Your task to perform on an android device: Open privacy settings Image 0: 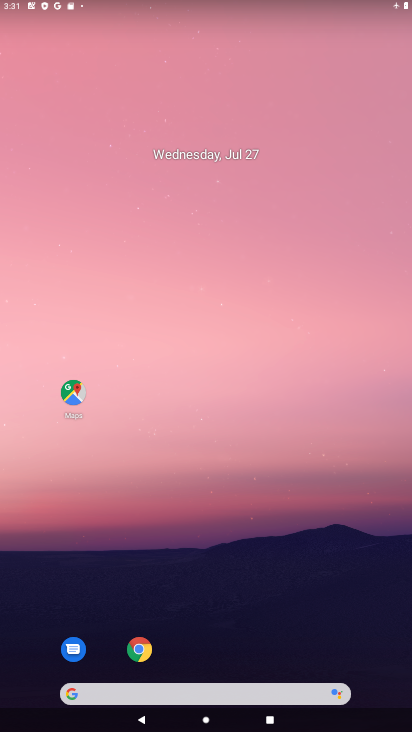
Step 0: drag from (237, 579) to (303, 194)
Your task to perform on an android device: Open privacy settings Image 1: 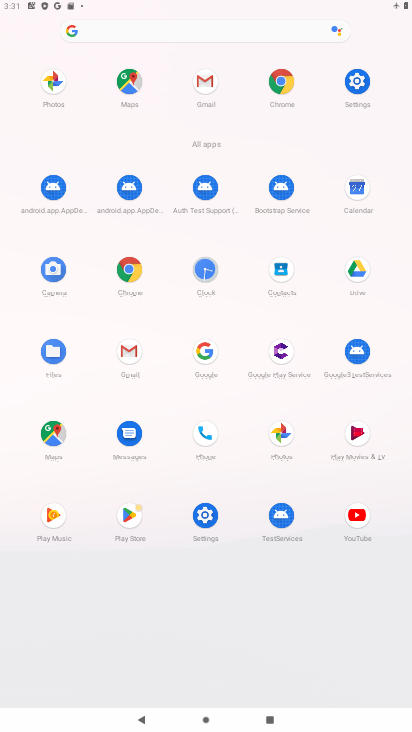
Step 1: click (204, 521)
Your task to perform on an android device: Open privacy settings Image 2: 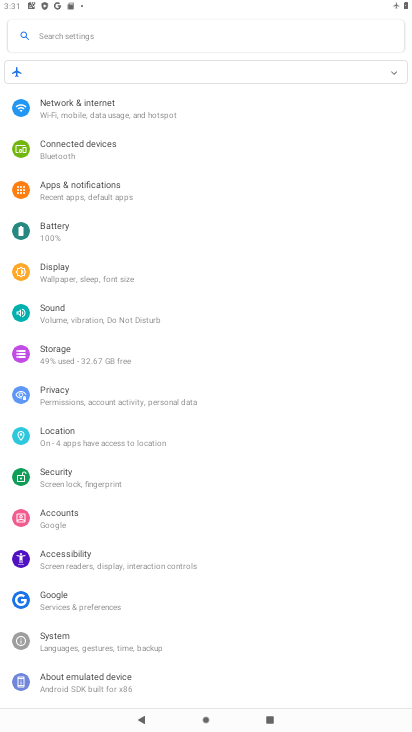
Step 2: click (63, 393)
Your task to perform on an android device: Open privacy settings Image 3: 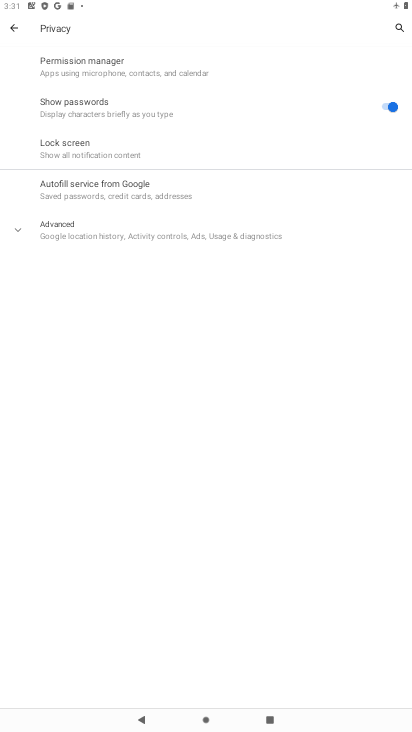
Step 3: task complete